Your task to perform on an android device: set the timer Image 0: 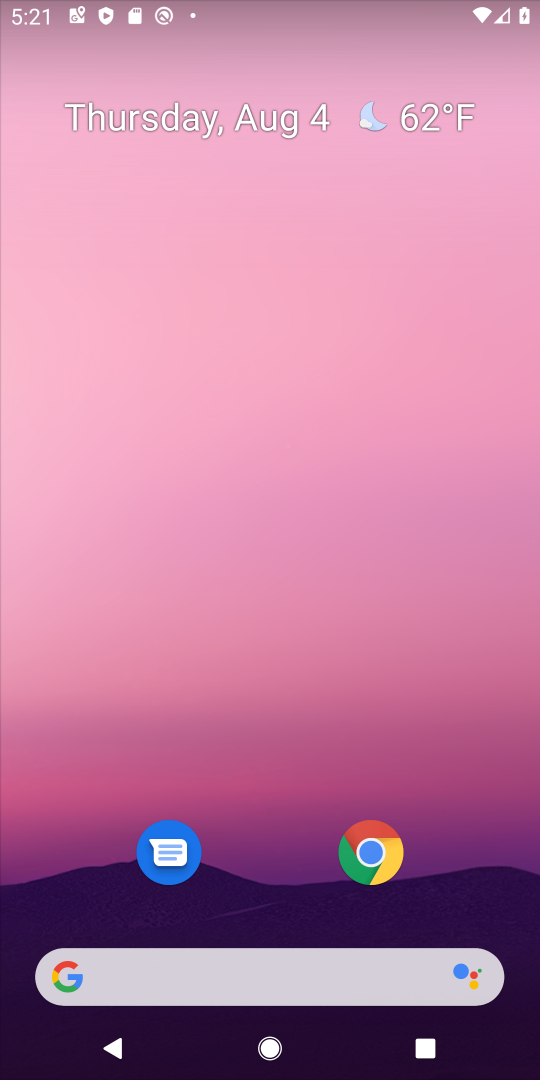
Step 0: drag from (246, 888) to (196, 182)
Your task to perform on an android device: set the timer Image 1: 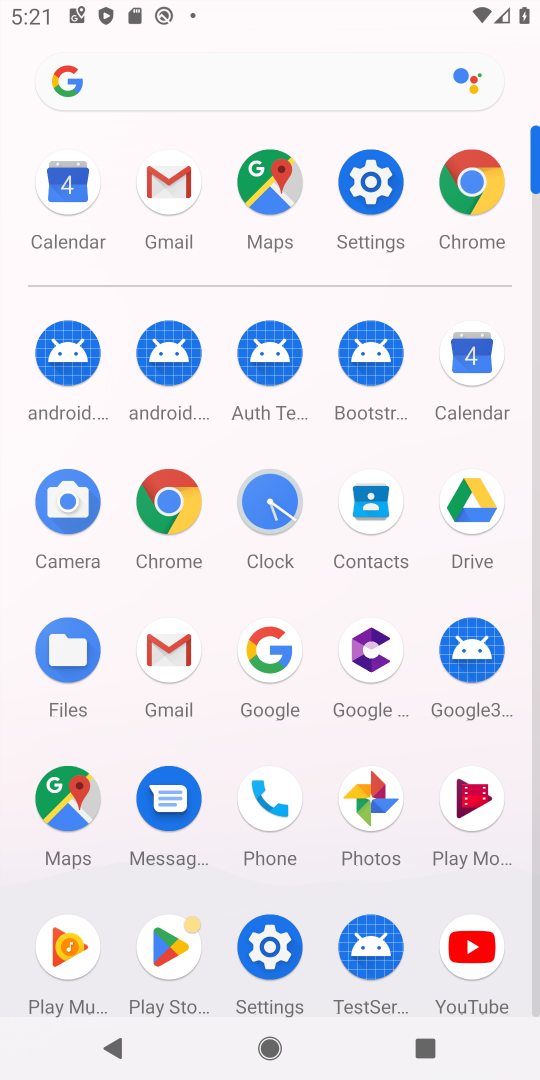
Step 1: click (258, 512)
Your task to perform on an android device: set the timer Image 2: 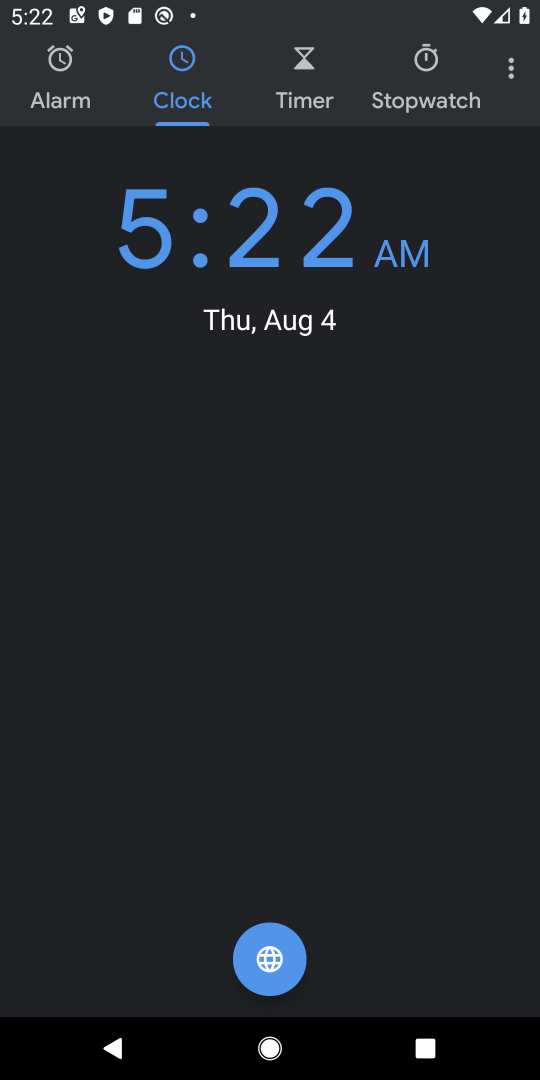
Step 2: click (308, 67)
Your task to perform on an android device: set the timer Image 3: 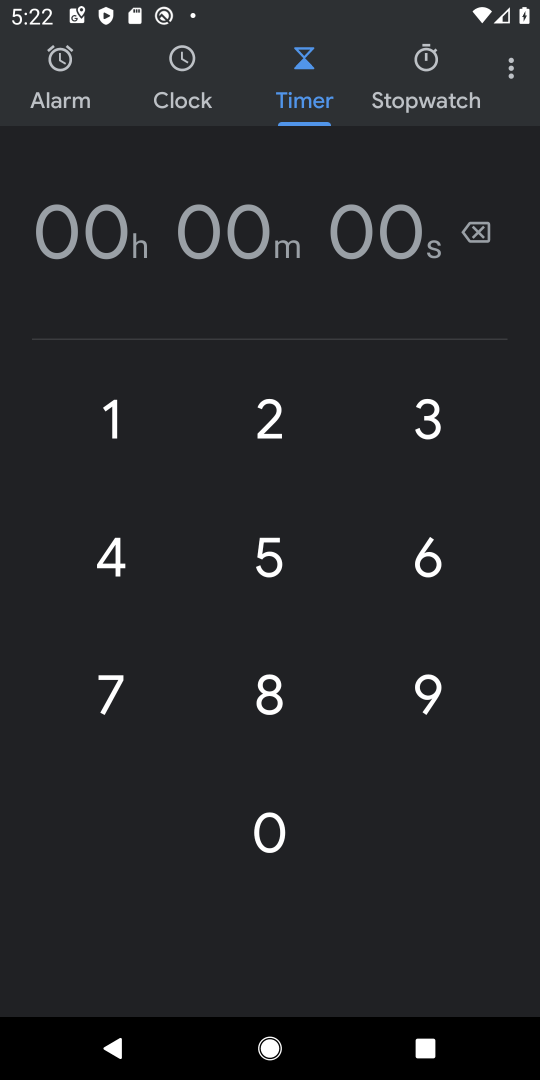
Step 3: click (269, 410)
Your task to perform on an android device: set the timer Image 4: 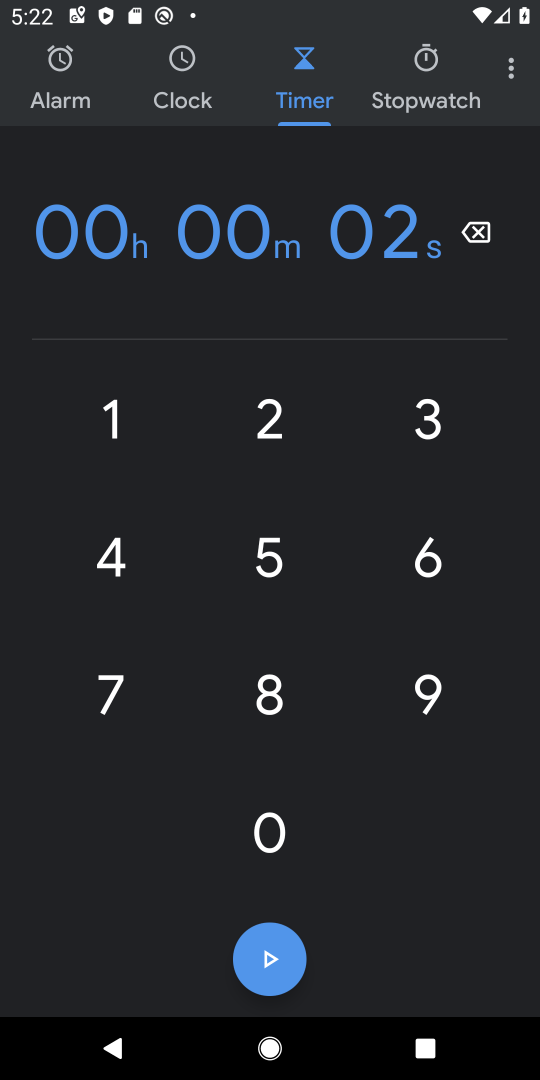
Step 4: click (256, 565)
Your task to perform on an android device: set the timer Image 5: 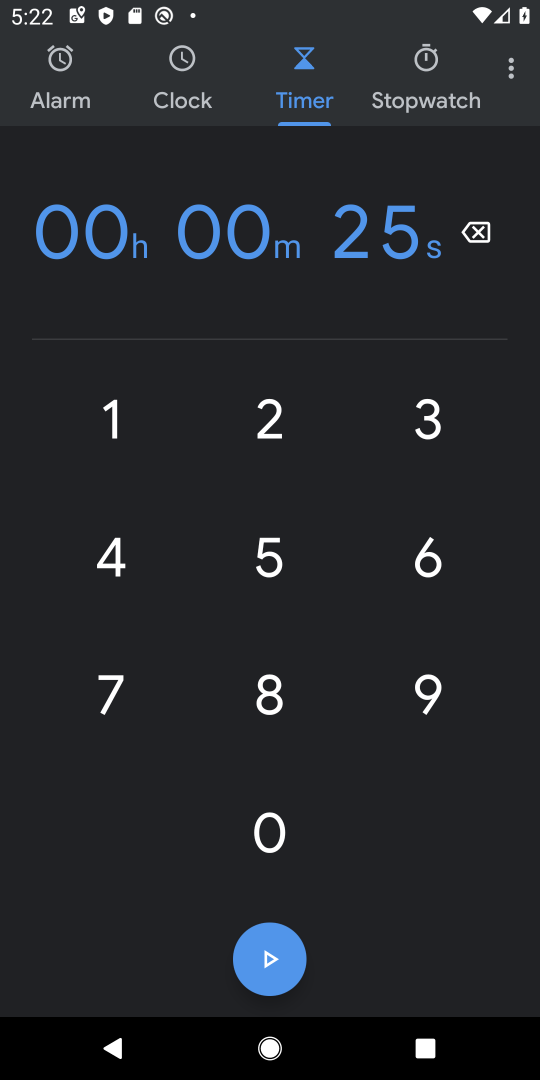
Step 5: click (456, 552)
Your task to perform on an android device: set the timer Image 6: 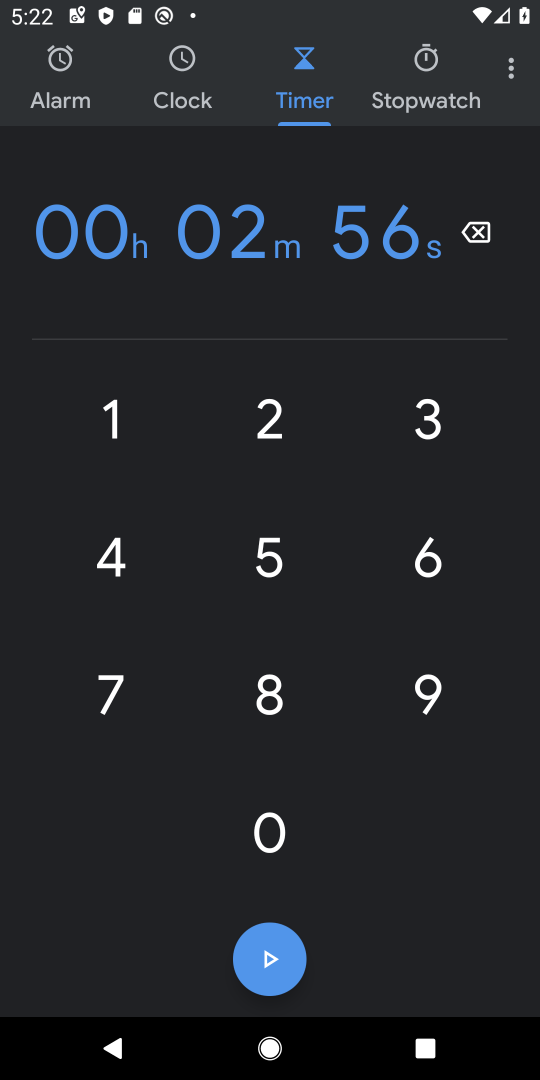
Step 6: click (255, 968)
Your task to perform on an android device: set the timer Image 7: 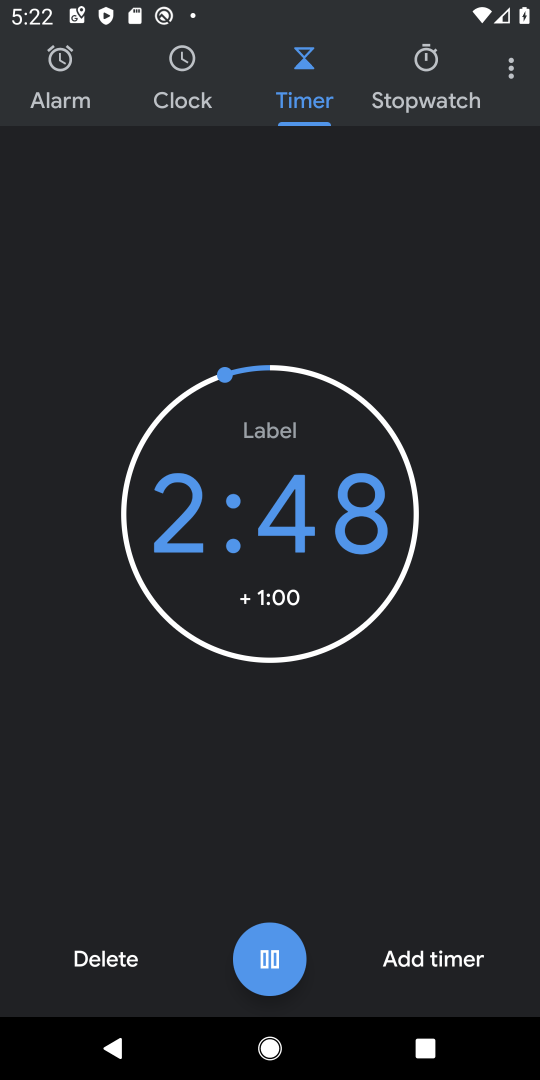
Step 7: task complete